Your task to perform on an android device: Search for Mexican restaurants on Maps Image 0: 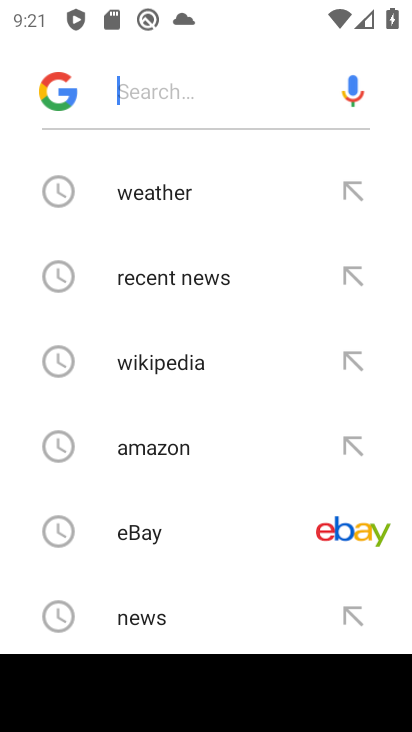
Step 0: type "Mexican restaurants "
Your task to perform on an android device: Search for Mexican restaurants on Maps Image 1: 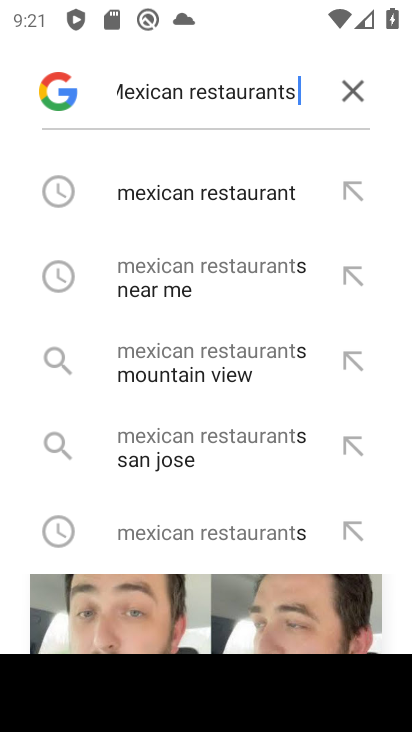
Step 1: press back button
Your task to perform on an android device: Search for Mexican restaurants on Maps Image 2: 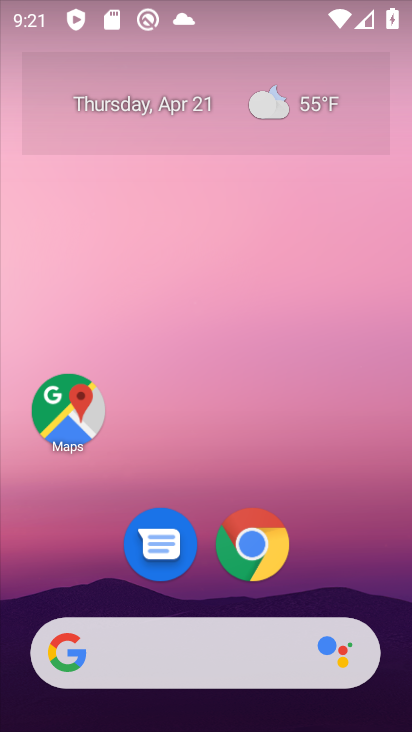
Step 2: click (66, 408)
Your task to perform on an android device: Search for Mexican restaurants on Maps Image 3: 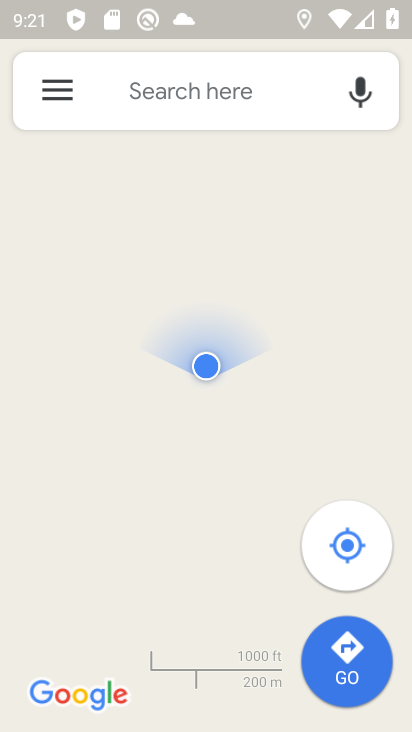
Step 3: click (255, 96)
Your task to perform on an android device: Search for Mexican restaurants on Maps Image 4: 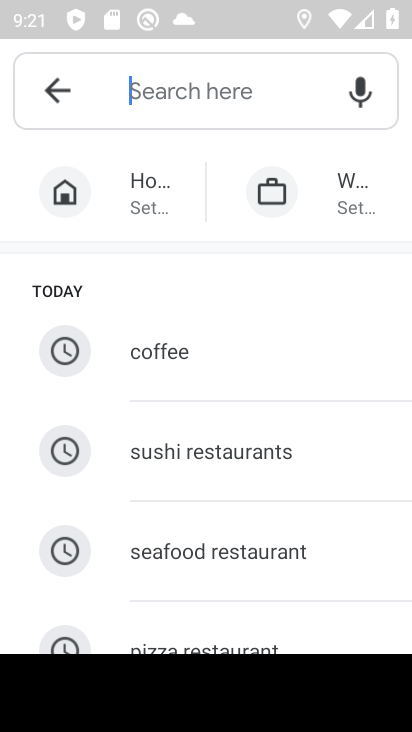
Step 4: type "Mexican restaurants "
Your task to perform on an android device: Search for Mexican restaurants on Maps Image 5: 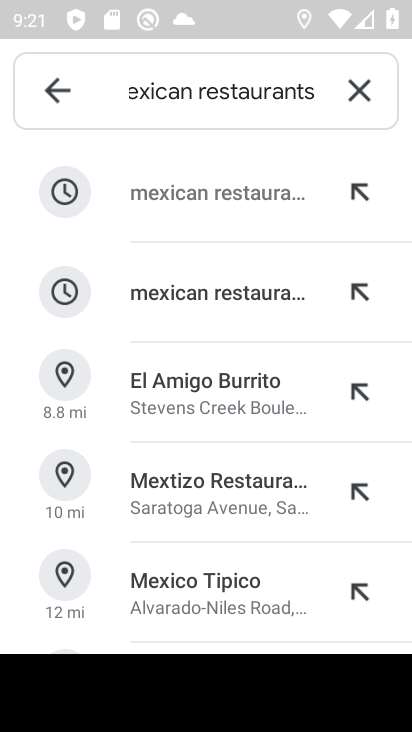
Step 5: click (169, 288)
Your task to perform on an android device: Search for Mexican restaurants on Maps Image 6: 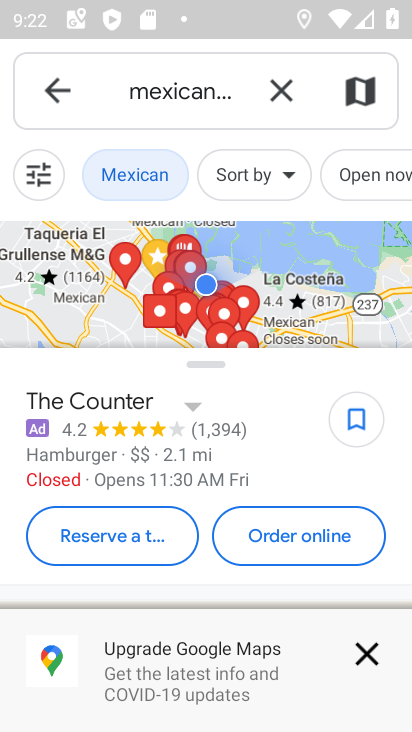
Step 6: task complete